Your task to perform on an android device: Open Google Maps Image 0: 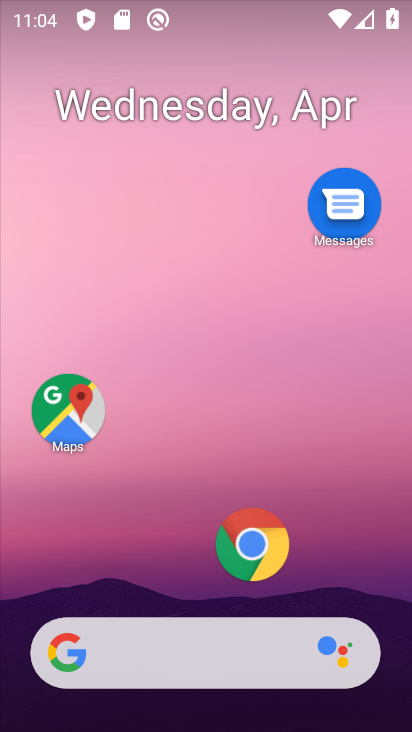
Step 0: drag from (180, 597) to (168, 0)
Your task to perform on an android device: Open Google Maps Image 1: 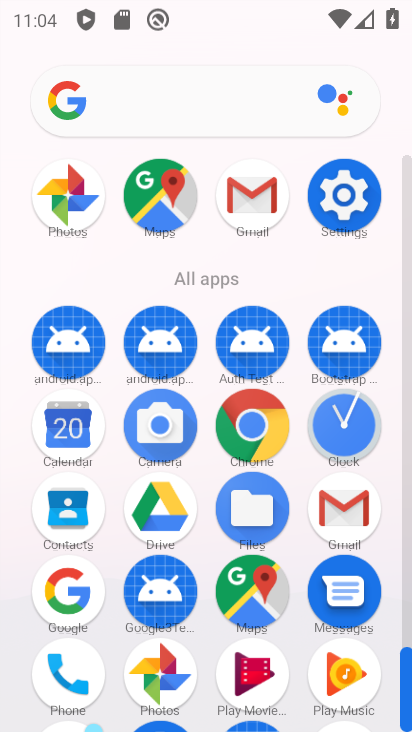
Step 1: click (253, 591)
Your task to perform on an android device: Open Google Maps Image 2: 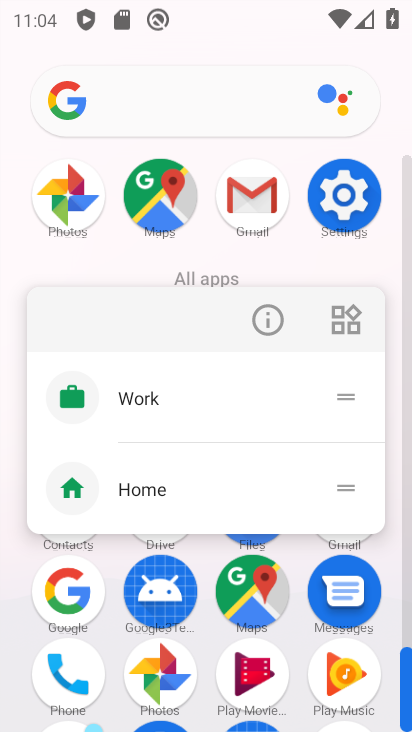
Step 2: click (256, 582)
Your task to perform on an android device: Open Google Maps Image 3: 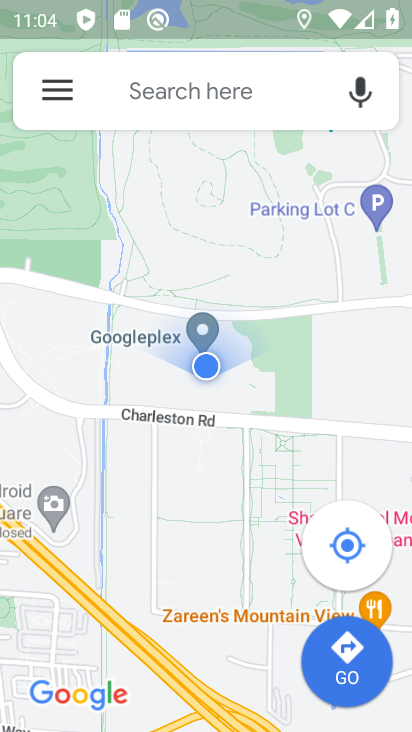
Step 3: task complete